Your task to perform on an android device: change keyboard looks Image 0: 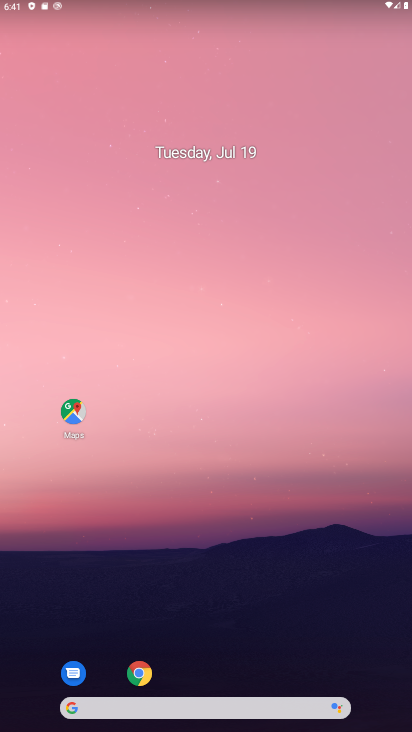
Step 0: drag from (385, 676) to (219, 42)
Your task to perform on an android device: change keyboard looks Image 1: 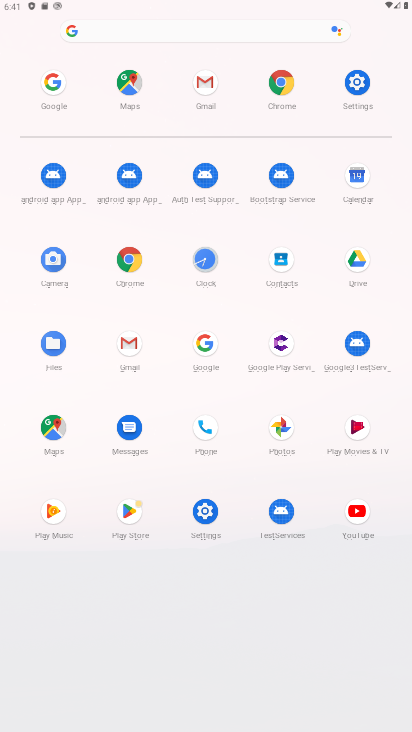
Step 1: click (195, 521)
Your task to perform on an android device: change keyboard looks Image 2: 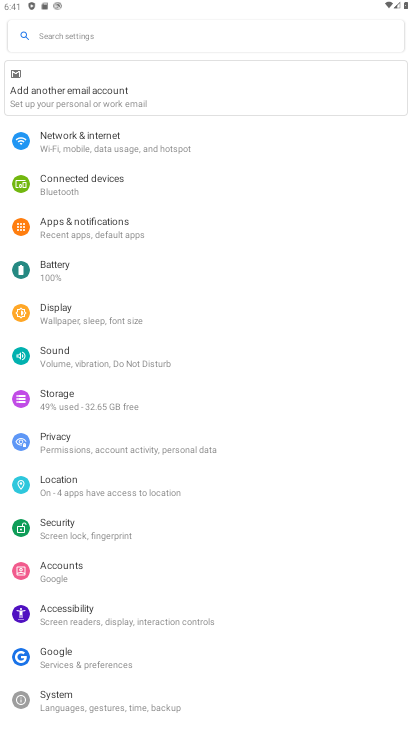
Step 2: drag from (150, 679) to (123, 92)
Your task to perform on an android device: change keyboard looks Image 3: 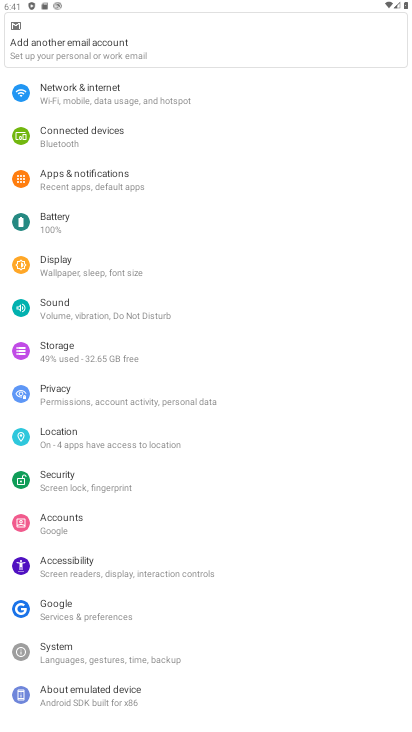
Step 3: click (104, 667)
Your task to perform on an android device: change keyboard looks Image 4: 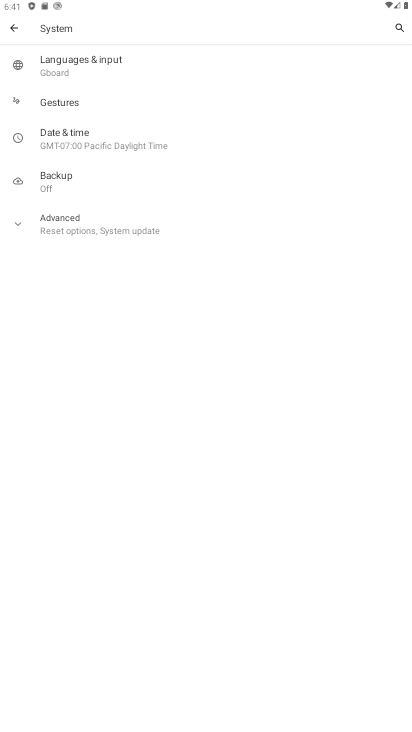
Step 4: click (87, 66)
Your task to perform on an android device: change keyboard looks Image 5: 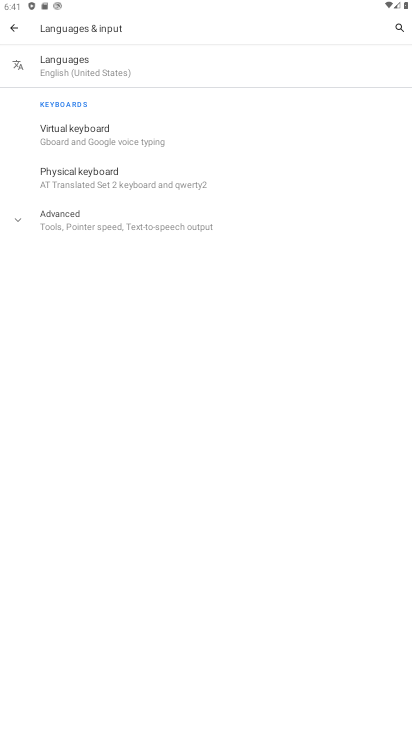
Step 5: click (88, 134)
Your task to perform on an android device: change keyboard looks Image 6: 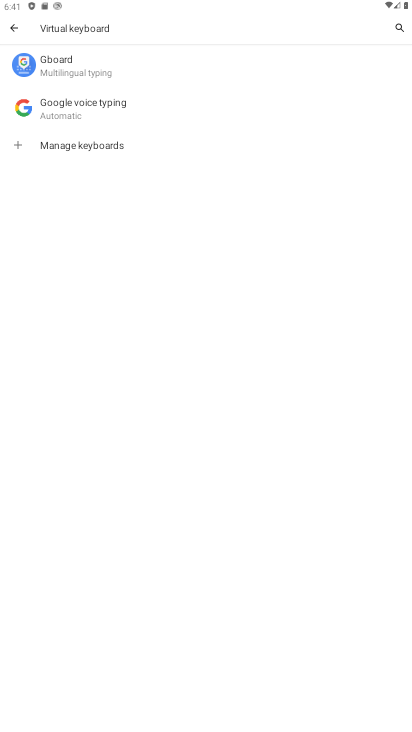
Step 6: click (79, 74)
Your task to perform on an android device: change keyboard looks Image 7: 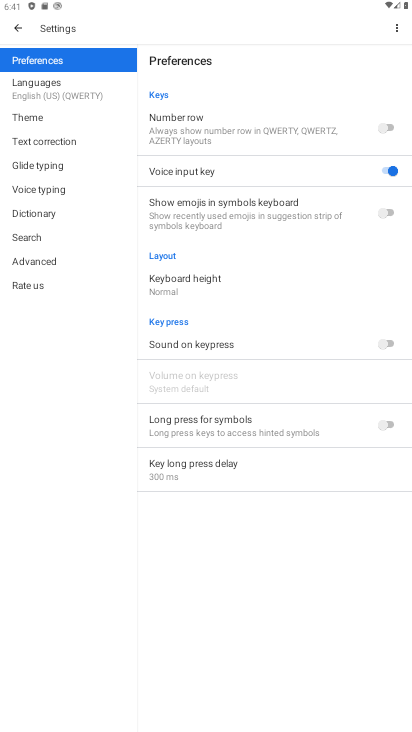
Step 7: click (48, 112)
Your task to perform on an android device: change keyboard looks Image 8: 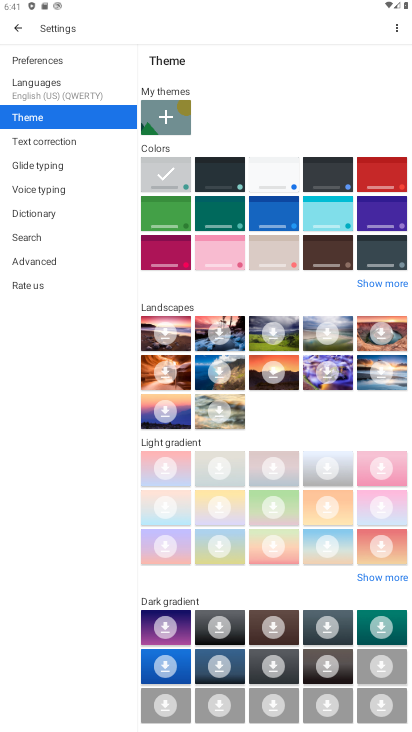
Step 8: click (228, 178)
Your task to perform on an android device: change keyboard looks Image 9: 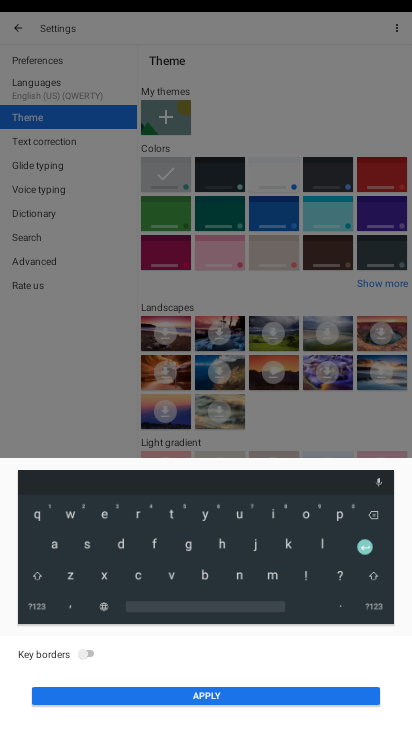
Step 9: click (222, 697)
Your task to perform on an android device: change keyboard looks Image 10: 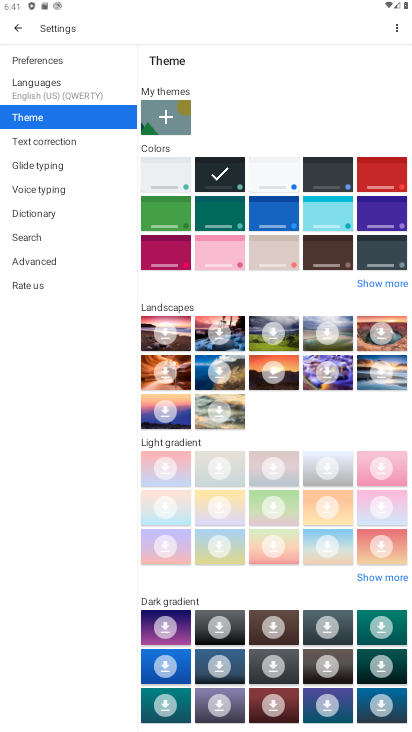
Step 10: task complete